Your task to perform on an android device: delete browsing data in the chrome app Image 0: 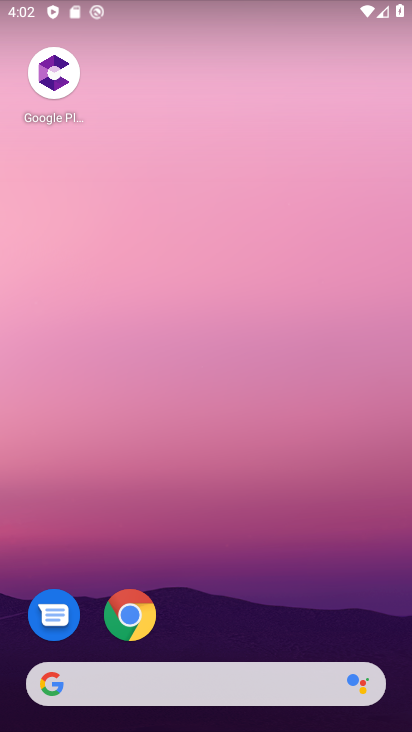
Step 0: click (125, 608)
Your task to perform on an android device: delete browsing data in the chrome app Image 1: 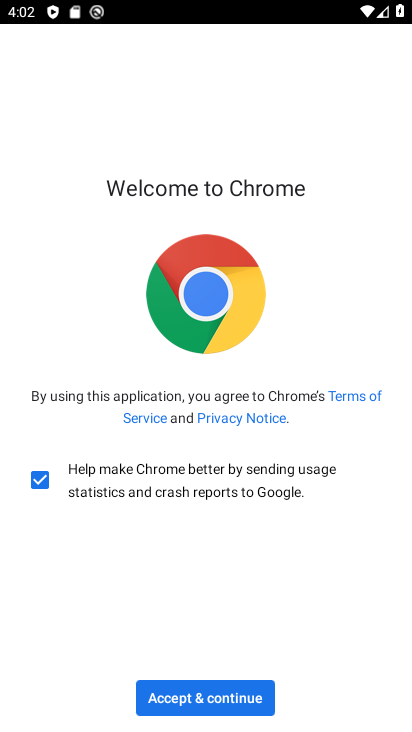
Step 1: click (231, 696)
Your task to perform on an android device: delete browsing data in the chrome app Image 2: 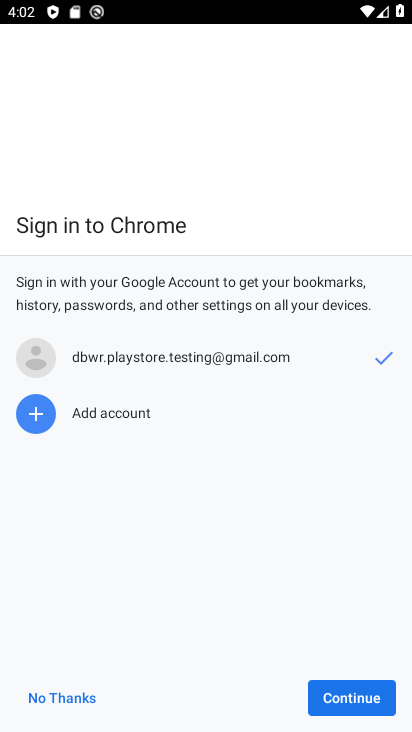
Step 2: click (323, 693)
Your task to perform on an android device: delete browsing data in the chrome app Image 3: 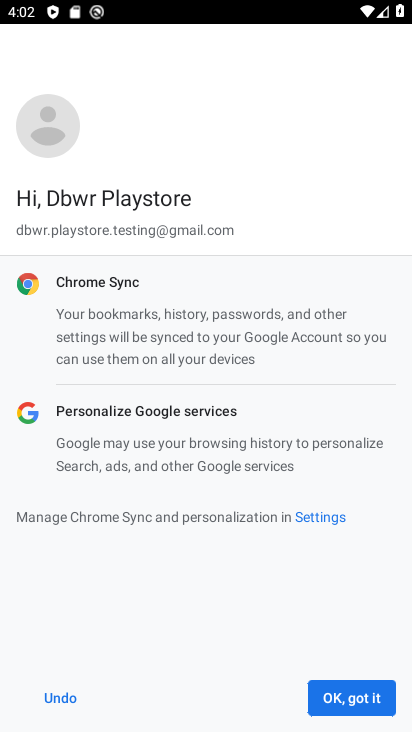
Step 3: click (327, 694)
Your task to perform on an android device: delete browsing data in the chrome app Image 4: 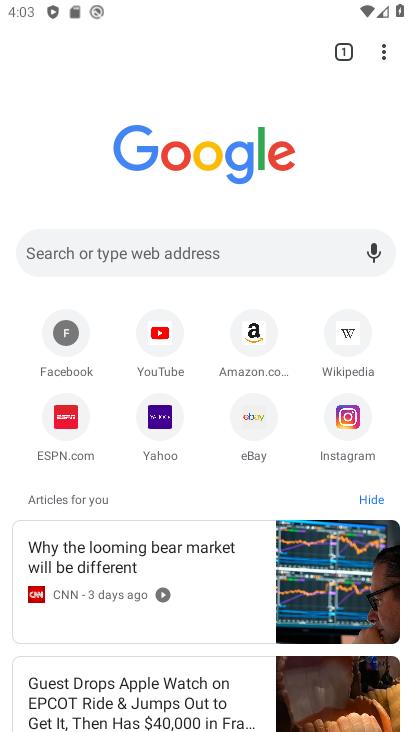
Step 4: click (390, 73)
Your task to perform on an android device: delete browsing data in the chrome app Image 5: 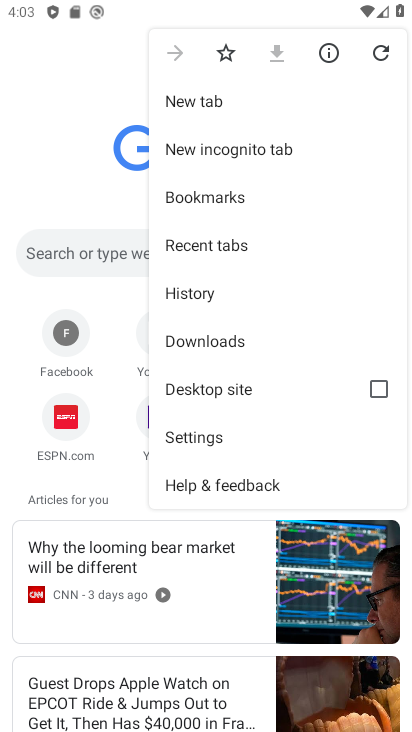
Step 5: click (212, 298)
Your task to perform on an android device: delete browsing data in the chrome app Image 6: 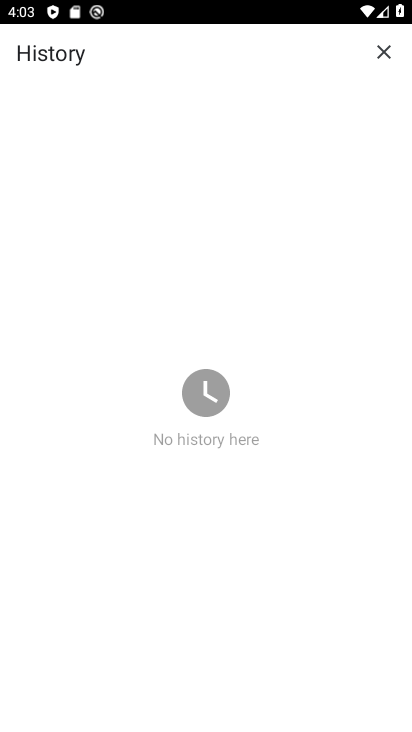
Step 6: task complete